Your task to perform on an android device: What's the weather going to be tomorrow? Image 0: 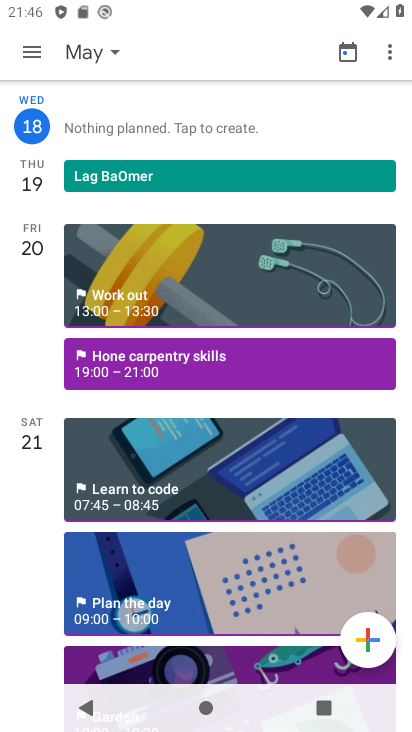
Step 0: press home button
Your task to perform on an android device: What's the weather going to be tomorrow? Image 1: 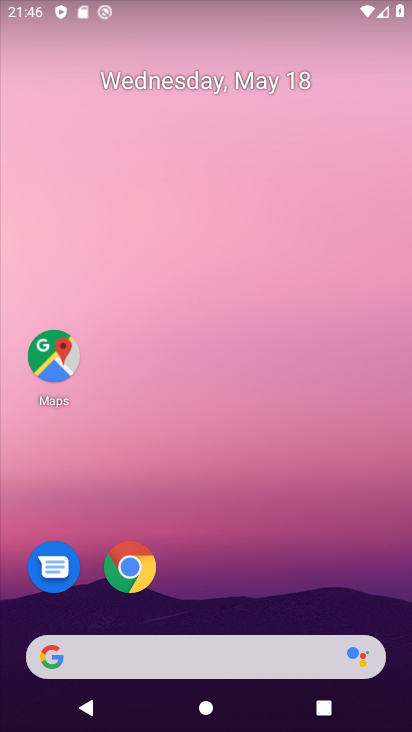
Step 1: drag from (203, 615) to (174, 262)
Your task to perform on an android device: What's the weather going to be tomorrow? Image 2: 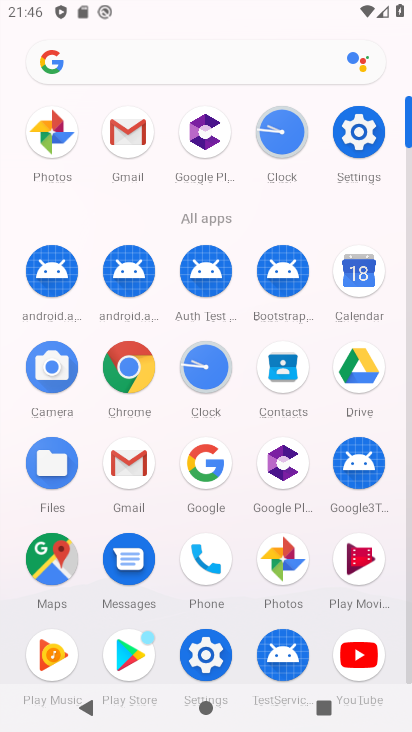
Step 2: click (204, 471)
Your task to perform on an android device: What's the weather going to be tomorrow? Image 3: 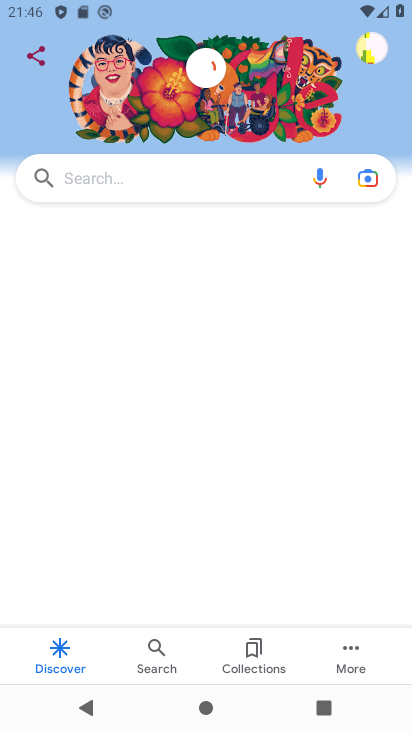
Step 3: click (135, 194)
Your task to perform on an android device: What's the weather going to be tomorrow? Image 4: 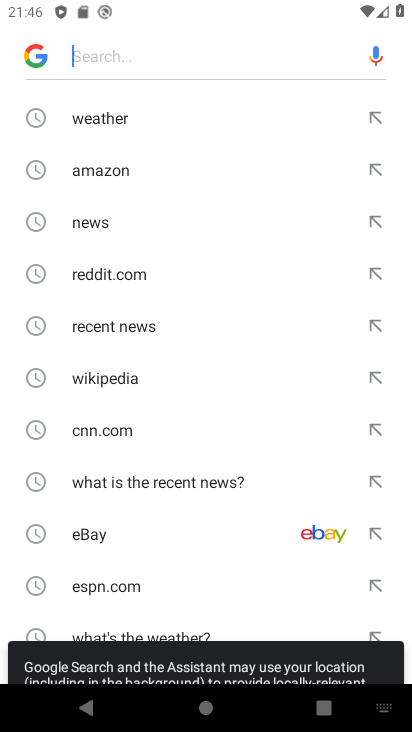
Step 4: click (99, 122)
Your task to perform on an android device: What's the weather going to be tomorrow? Image 5: 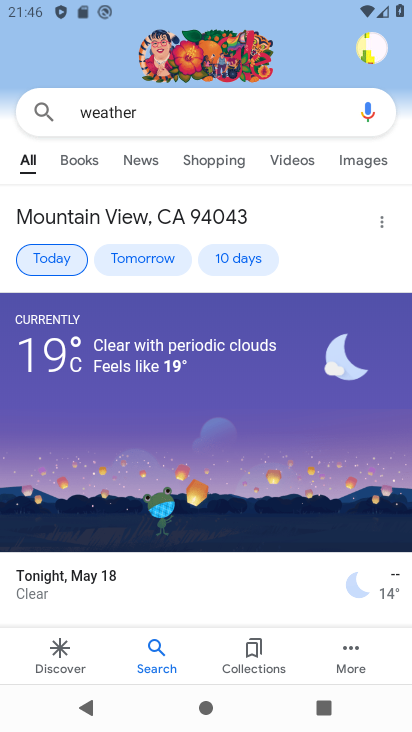
Step 5: click (127, 256)
Your task to perform on an android device: What's the weather going to be tomorrow? Image 6: 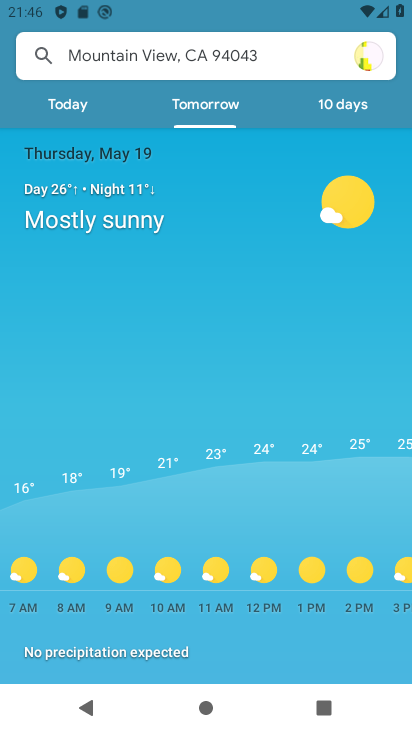
Step 6: task complete